Your task to perform on an android device: Open CNN.com Image 0: 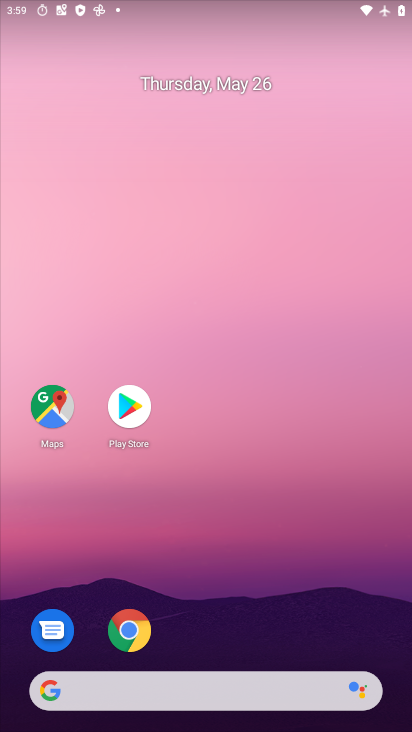
Step 0: click (134, 647)
Your task to perform on an android device: Open CNN.com Image 1: 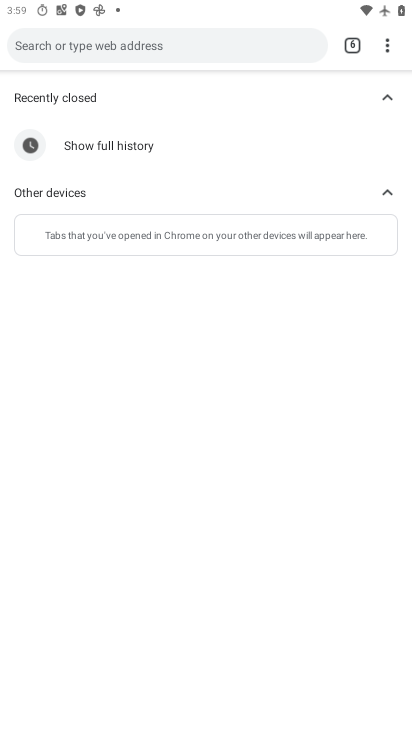
Step 1: click (243, 37)
Your task to perform on an android device: Open CNN.com Image 2: 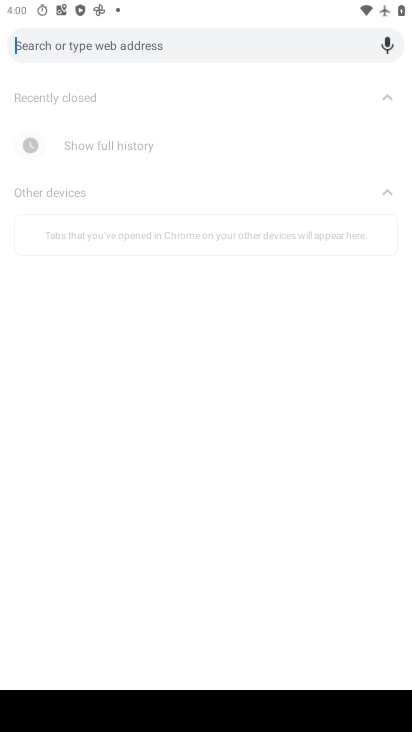
Step 2: type "cnn.com"
Your task to perform on an android device: Open CNN.com Image 3: 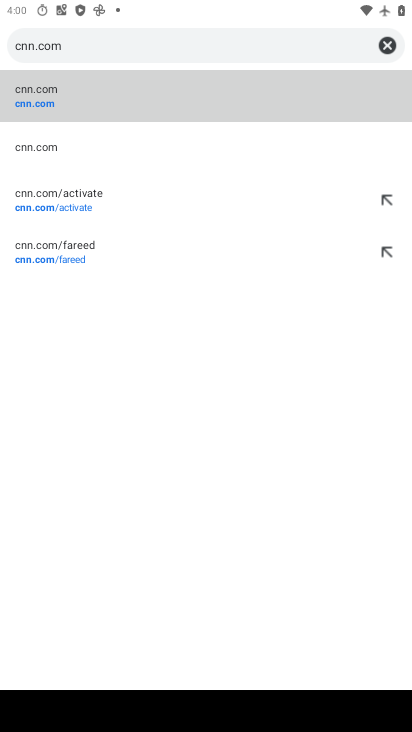
Step 3: click (311, 99)
Your task to perform on an android device: Open CNN.com Image 4: 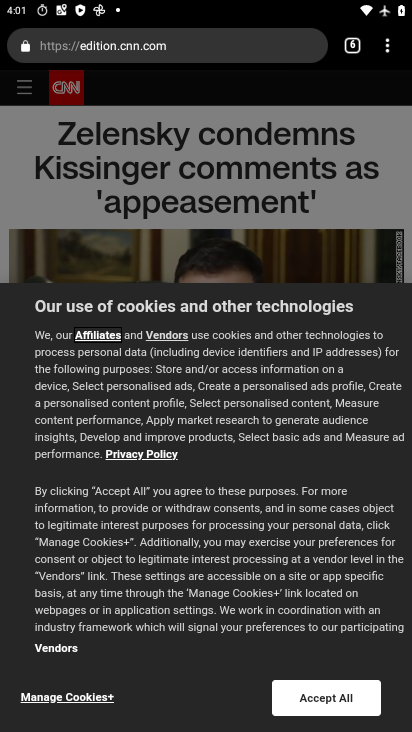
Step 4: task complete